Your task to perform on an android device: Show me the alarms in the clock app Image 0: 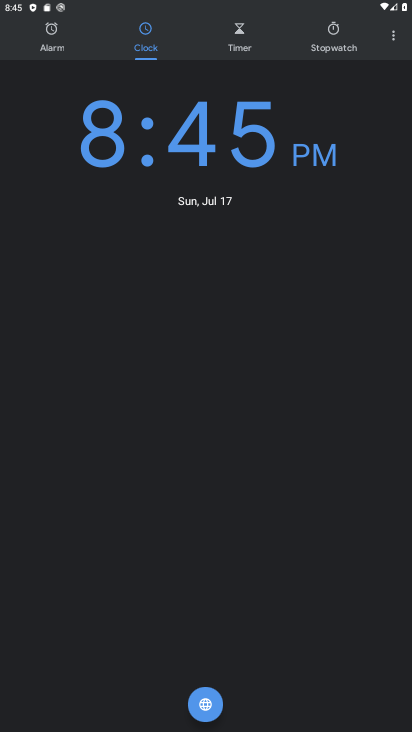
Step 0: click (54, 48)
Your task to perform on an android device: Show me the alarms in the clock app Image 1: 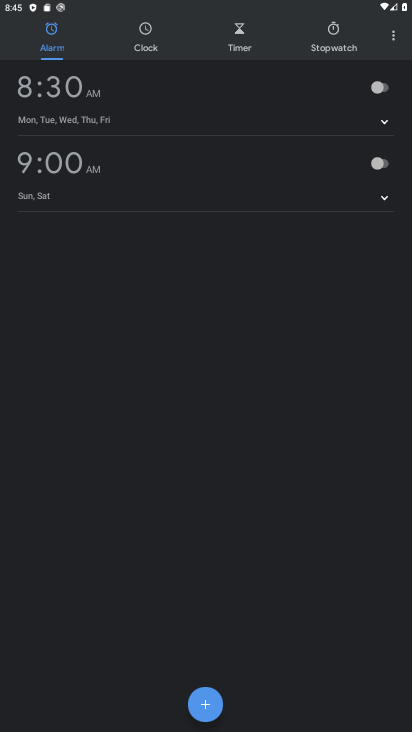
Step 1: task complete